Your task to perform on an android device: Open settings on Google Maps Image 0: 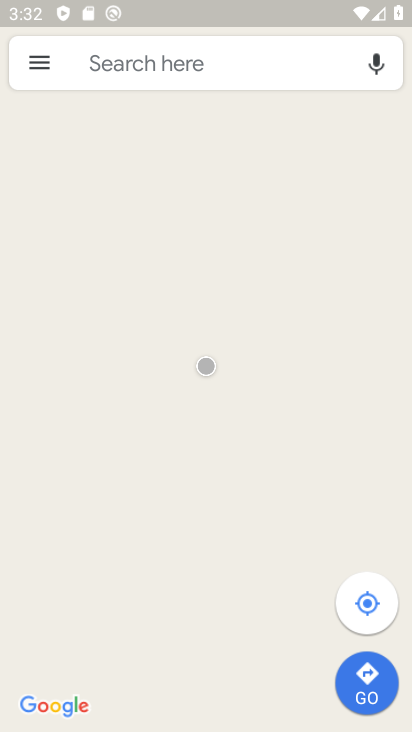
Step 0: click (29, 62)
Your task to perform on an android device: Open settings on Google Maps Image 1: 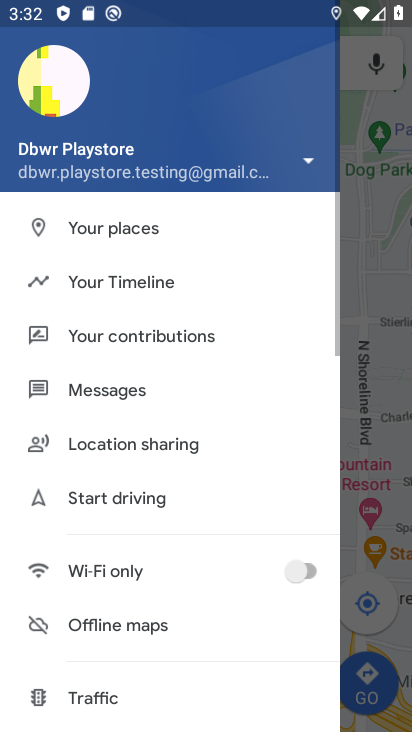
Step 1: click (144, 294)
Your task to perform on an android device: Open settings on Google Maps Image 2: 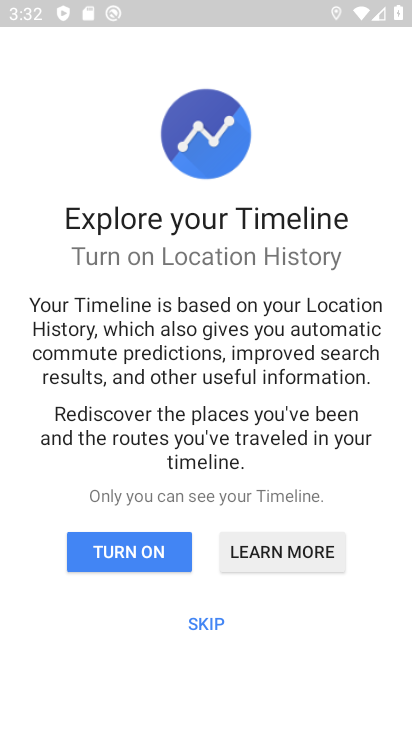
Step 2: click (209, 624)
Your task to perform on an android device: Open settings on Google Maps Image 3: 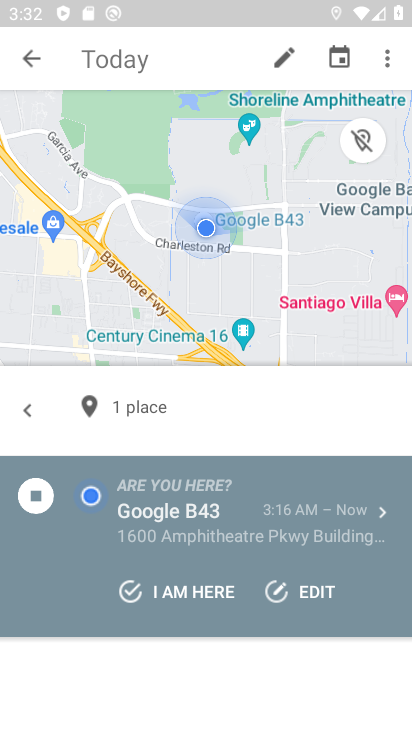
Step 3: click (388, 56)
Your task to perform on an android device: Open settings on Google Maps Image 4: 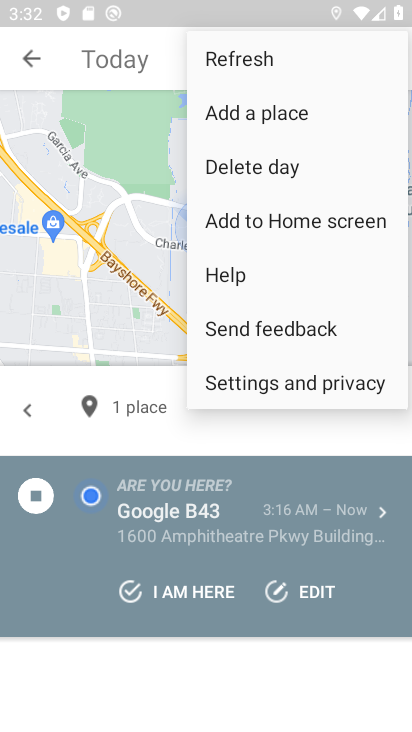
Step 4: click (304, 388)
Your task to perform on an android device: Open settings on Google Maps Image 5: 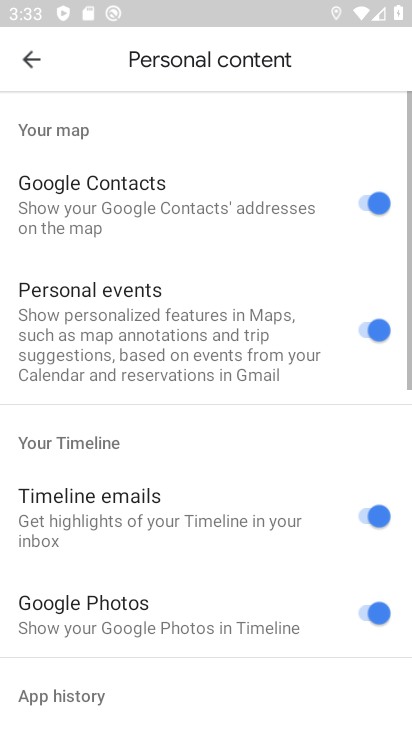
Step 5: task complete